Your task to perform on an android device: turn on data saver in the chrome app Image 0: 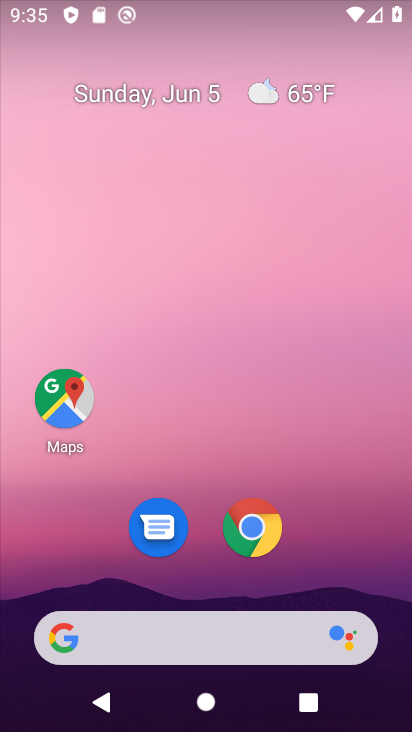
Step 0: click (268, 525)
Your task to perform on an android device: turn on data saver in the chrome app Image 1: 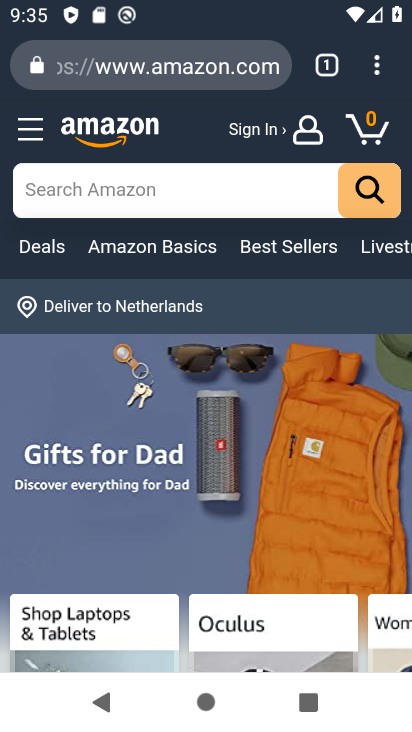
Step 1: click (374, 64)
Your task to perform on an android device: turn on data saver in the chrome app Image 2: 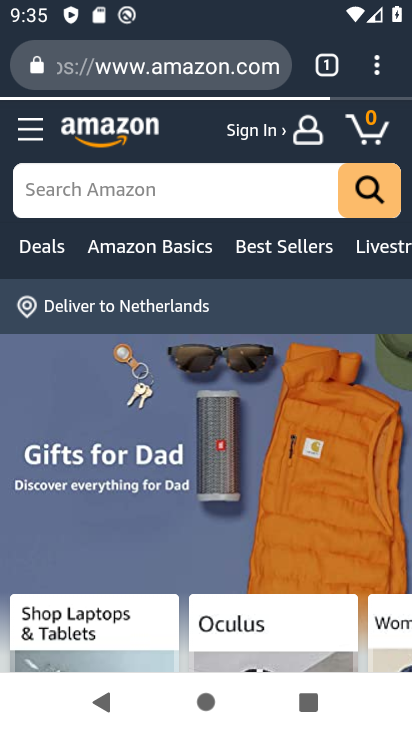
Step 2: drag from (378, 61) to (152, 574)
Your task to perform on an android device: turn on data saver in the chrome app Image 3: 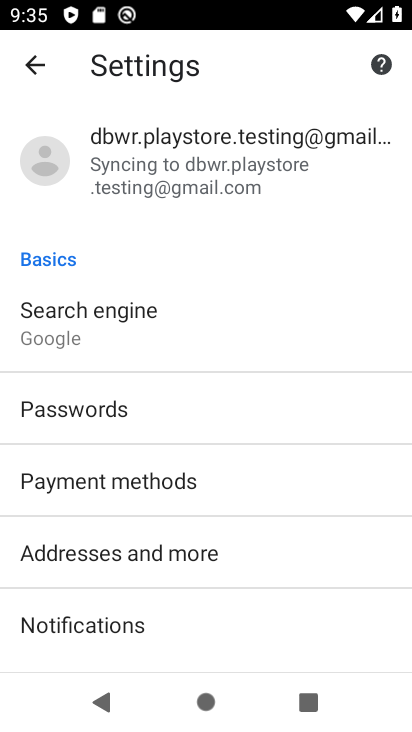
Step 3: drag from (142, 605) to (246, 47)
Your task to perform on an android device: turn on data saver in the chrome app Image 4: 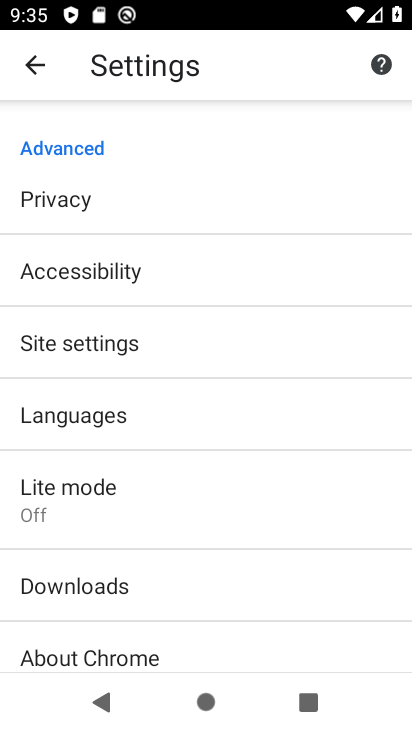
Step 4: click (116, 481)
Your task to perform on an android device: turn on data saver in the chrome app Image 5: 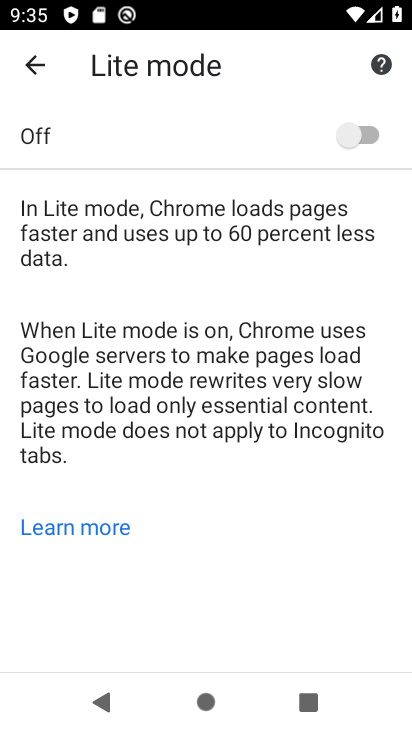
Step 5: click (349, 137)
Your task to perform on an android device: turn on data saver in the chrome app Image 6: 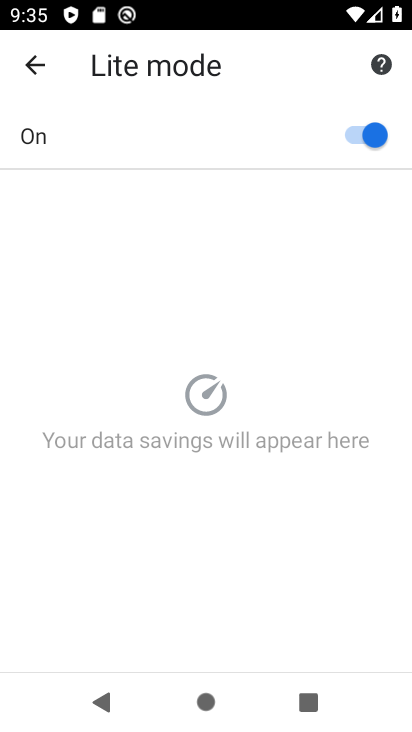
Step 6: task complete